Your task to perform on an android device: Go to display settings Image 0: 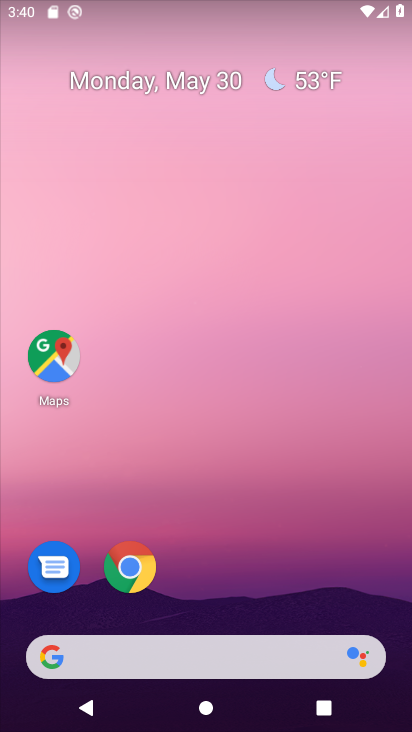
Step 0: drag from (277, 694) to (370, 29)
Your task to perform on an android device: Go to display settings Image 1: 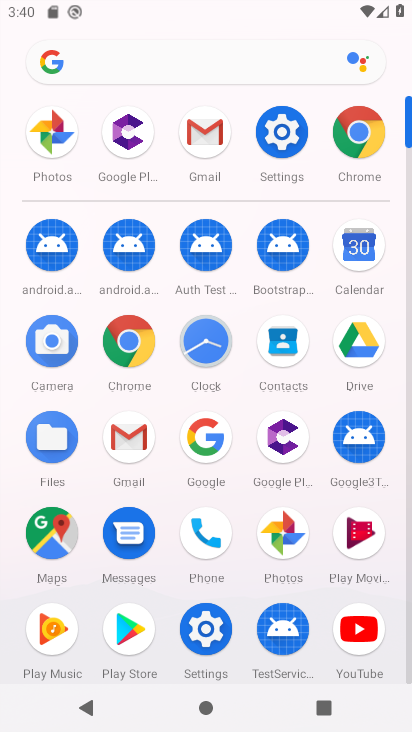
Step 1: click (285, 135)
Your task to perform on an android device: Go to display settings Image 2: 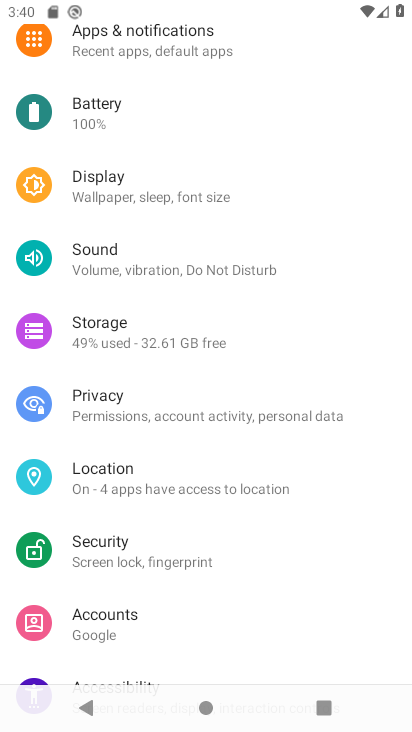
Step 2: click (171, 178)
Your task to perform on an android device: Go to display settings Image 3: 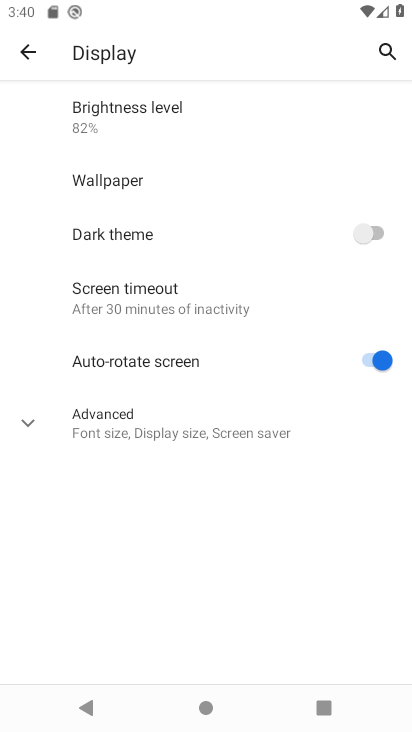
Step 3: press home button
Your task to perform on an android device: Go to display settings Image 4: 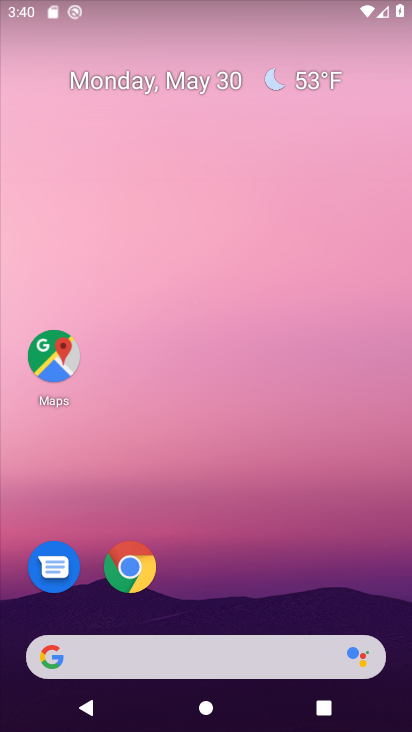
Step 4: drag from (316, 549) to (297, 3)
Your task to perform on an android device: Go to display settings Image 5: 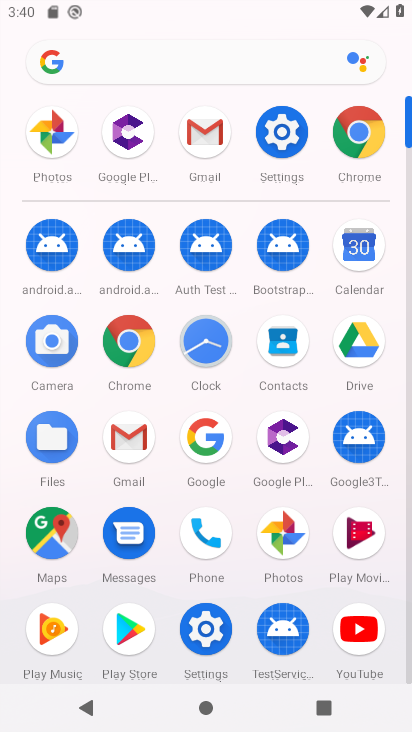
Step 5: click (265, 151)
Your task to perform on an android device: Go to display settings Image 6: 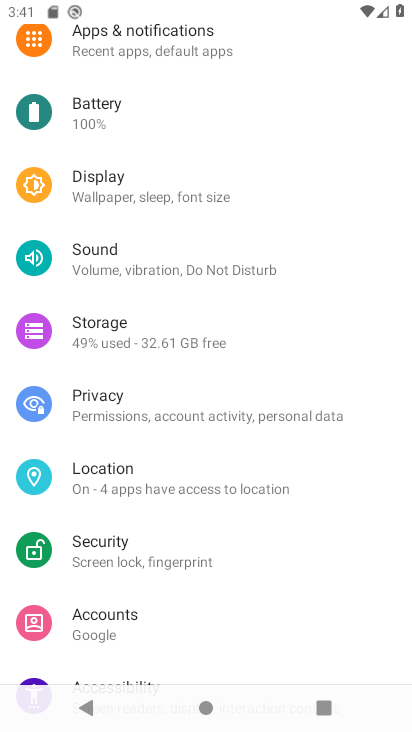
Step 6: press home button
Your task to perform on an android device: Go to display settings Image 7: 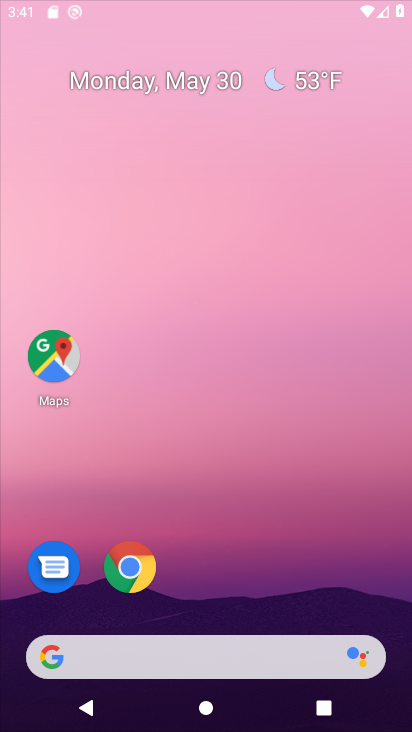
Step 7: drag from (264, 652) to (409, 680)
Your task to perform on an android device: Go to display settings Image 8: 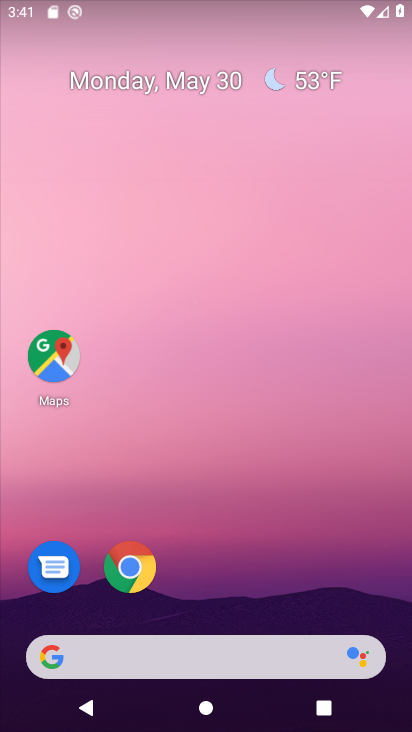
Step 8: drag from (272, 594) to (310, 73)
Your task to perform on an android device: Go to display settings Image 9: 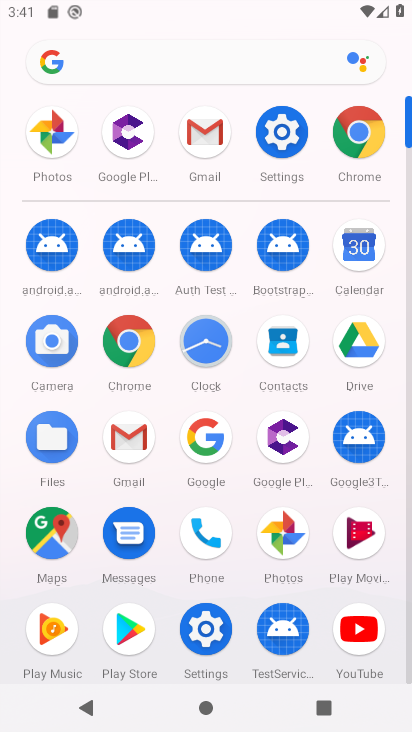
Step 9: click (299, 143)
Your task to perform on an android device: Go to display settings Image 10: 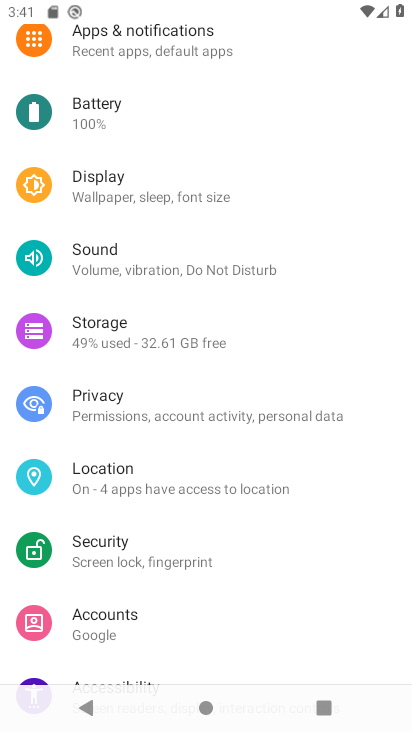
Step 10: click (175, 180)
Your task to perform on an android device: Go to display settings Image 11: 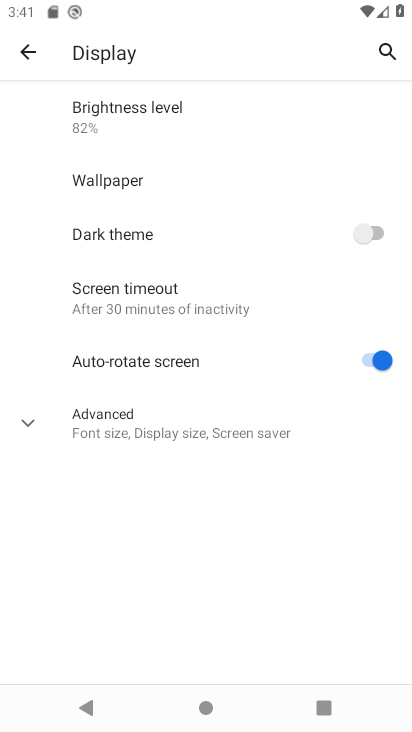
Step 11: task complete